Your task to perform on an android device: Open the Play Movies app and select the watchlist tab. Image 0: 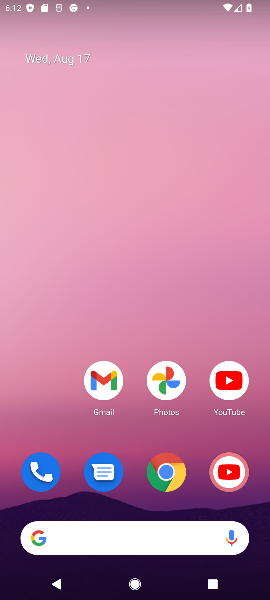
Step 0: drag from (139, 437) to (126, 91)
Your task to perform on an android device: Open the Play Movies app and select the watchlist tab. Image 1: 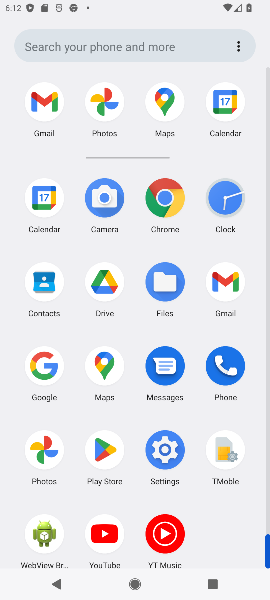
Step 1: task complete